Your task to perform on an android device: turn on the 12-hour format for clock Image 0: 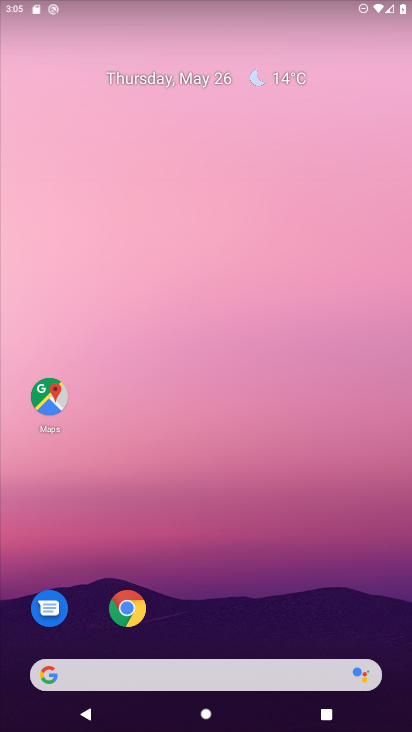
Step 0: drag from (290, 574) to (283, 50)
Your task to perform on an android device: turn on the 12-hour format for clock Image 1: 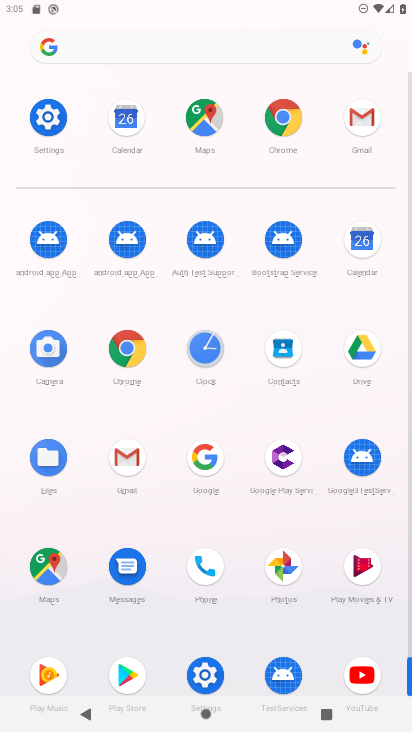
Step 1: click (206, 368)
Your task to perform on an android device: turn on the 12-hour format for clock Image 2: 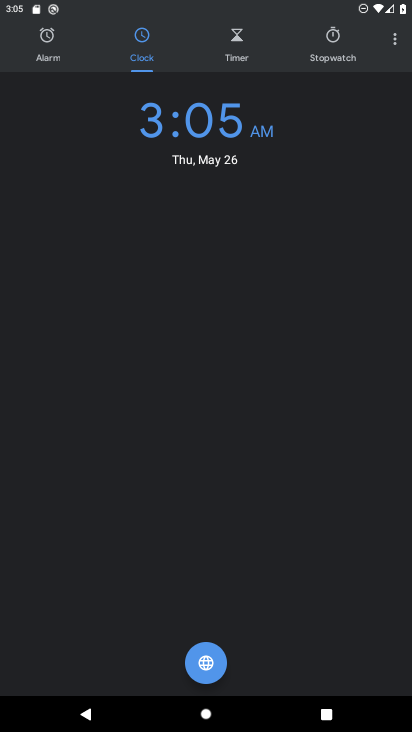
Step 2: click (381, 42)
Your task to perform on an android device: turn on the 12-hour format for clock Image 3: 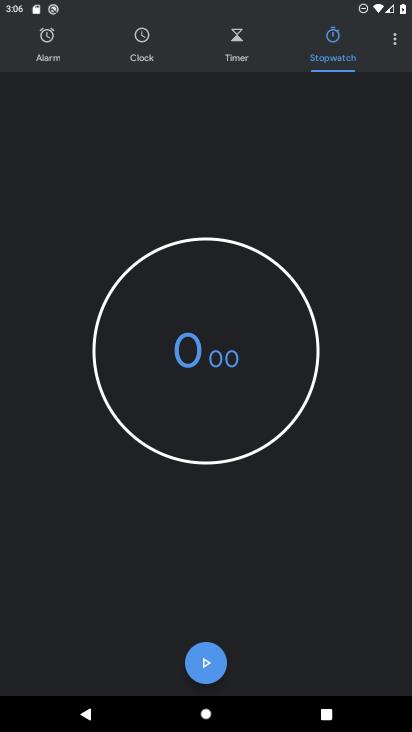
Step 3: click (393, 45)
Your task to perform on an android device: turn on the 12-hour format for clock Image 4: 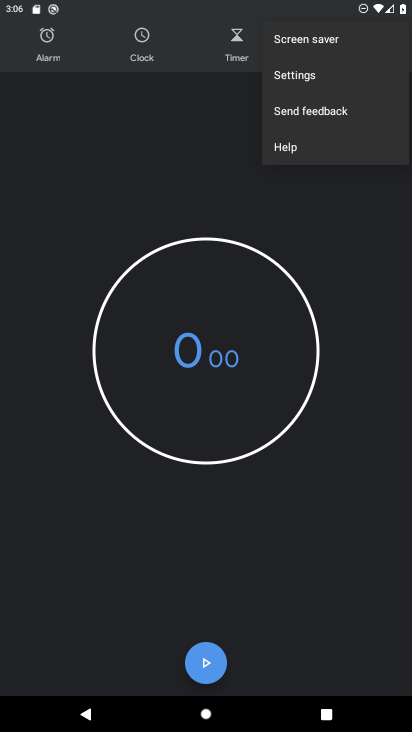
Step 4: click (315, 79)
Your task to perform on an android device: turn on the 12-hour format for clock Image 5: 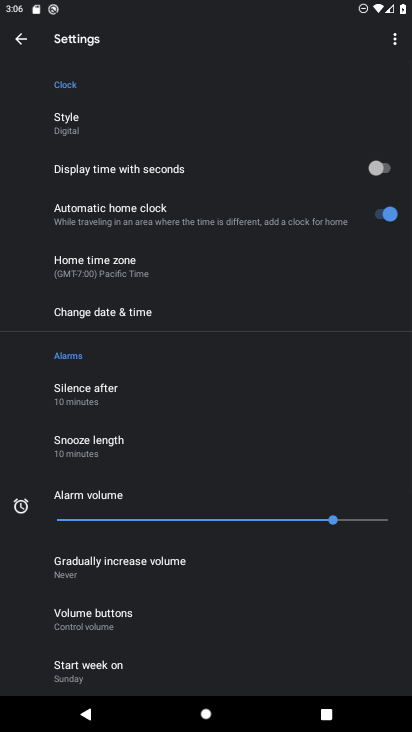
Step 5: drag from (193, 610) to (250, 125)
Your task to perform on an android device: turn on the 12-hour format for clock Image 6: 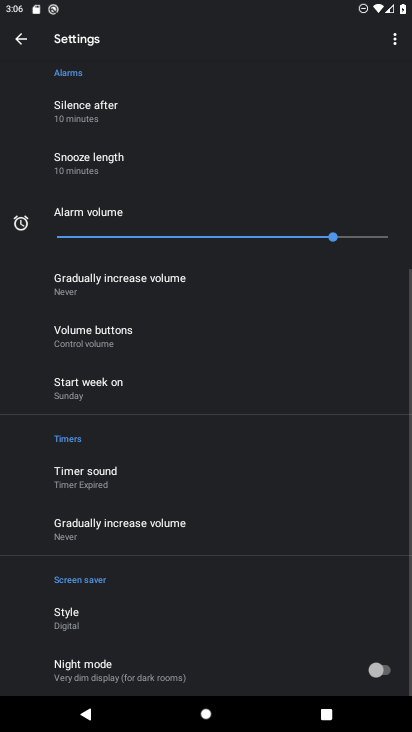
Step 6: drag from (252, 127) to (329, 577)
Your task to perform on an android device: turn on the 12-hour format for clock Image 7: 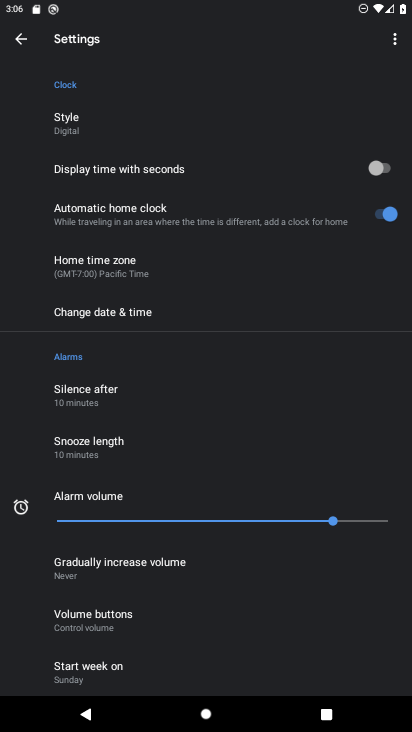
Step 7: click (126, 303)
Your task to perform on an android device: turn on the 12-hour format for clock Image 8: 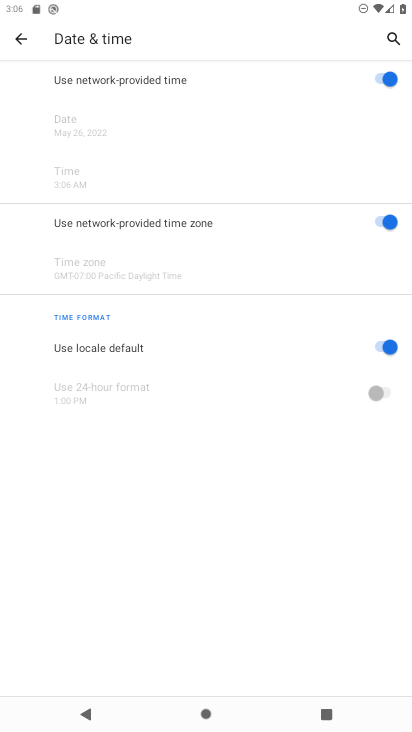
Step 8: task complete